Your task to perform on an android device: toggle wifi Image 0: 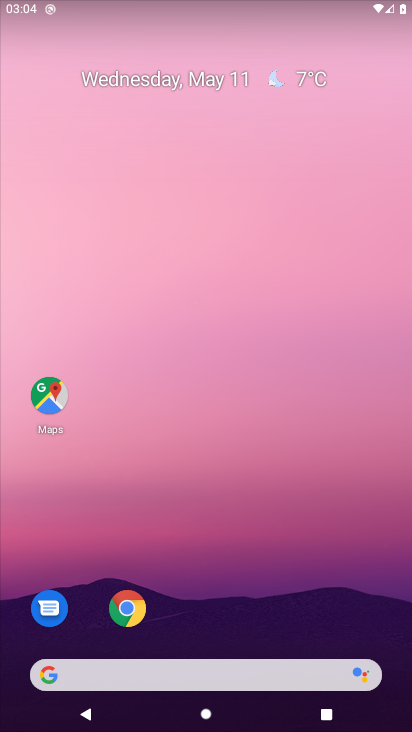
Step 0: press home button
Your task to perform on an android device: toggle wifi Image 1: 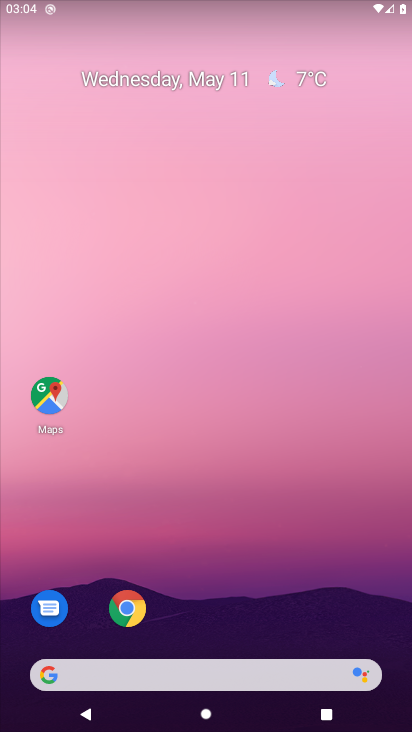
Step 1: drag from (223, 5) to (278, 619)
Your task to perform on an android device: toggle wifi Image 2: 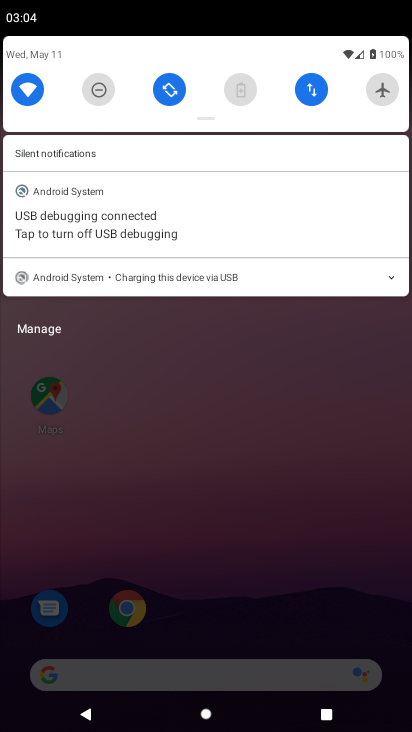
Step 2: click (22, 91)
Your task to perform on an android device: toggle wifi Image 3: 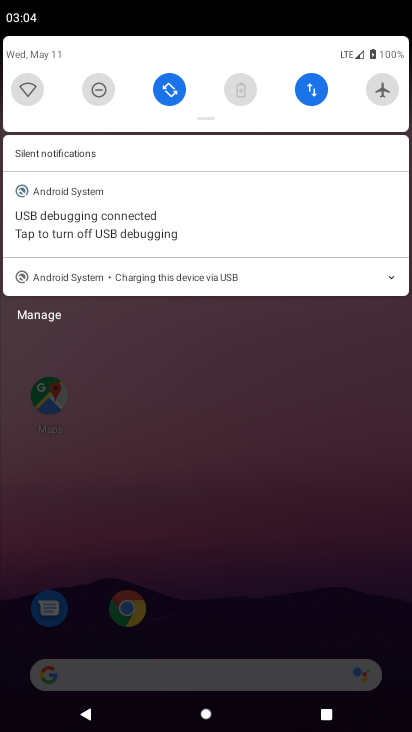
Step 3: task complete